Your task to perform on an android device: Go to privacy settings Image 0: 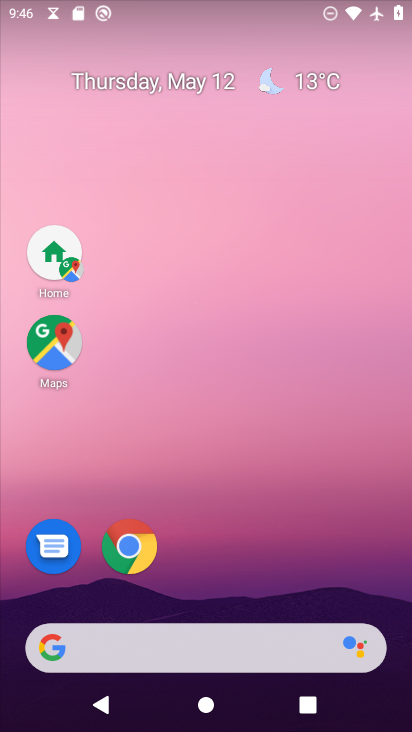
Step 0: drag from (163, 662) to (356, 109)
Your task to perform on an android device: Go to privacy settings Image 1: 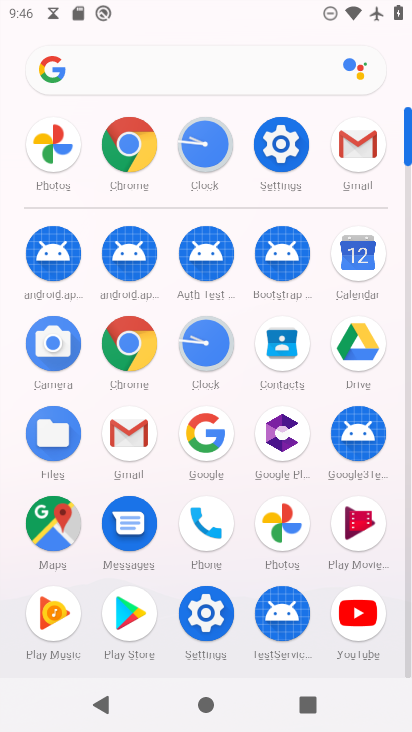
Step 1: click (281, 147)
Your task to perform on an android device: Go to privacy settings Image 2: 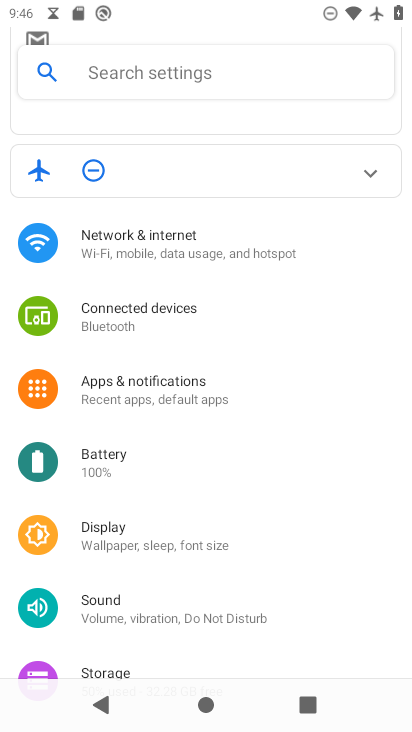
Step 2: drag from (200, 593) to (339, 277)
Your task to perform on an android device: Go to privacy settings Image 3: 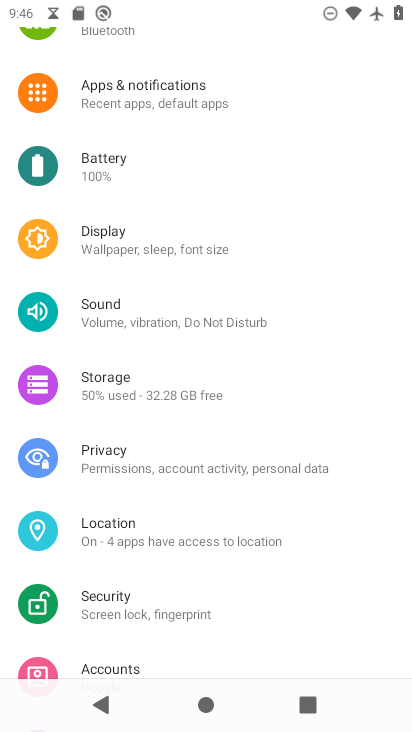
Step 3: click (125, 458)
Your task to perform on an android device: Go to privacy settings Image 4: 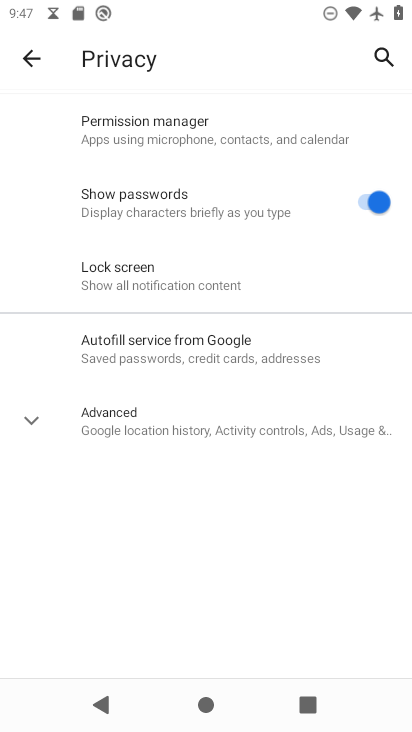
Step 4: task complete